Your task to perform on an android device: Go to Reddit.com Image 0: 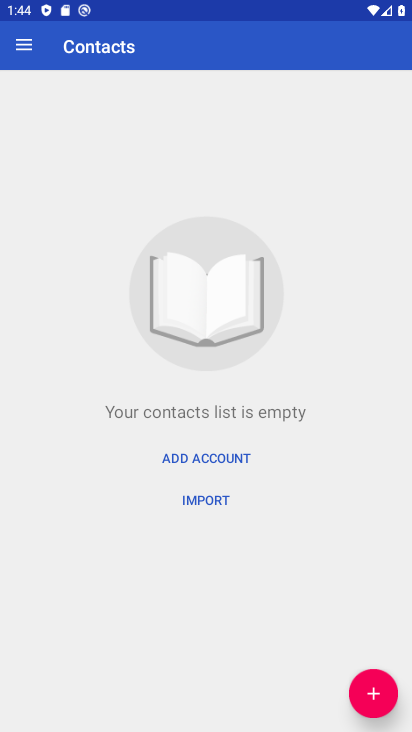
Step 0: press home button
Your task to perform on an android device: Go to Reddit.com Image 1: 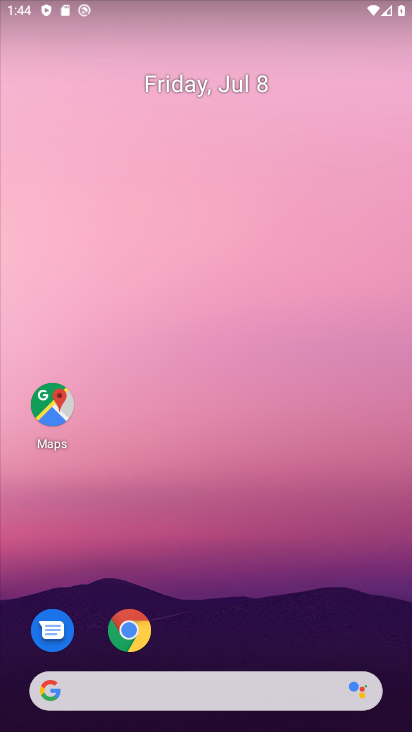
Step 1: drag from (248, 648) to (256, 169)
Your task to perform on an android device: Go to Reddit.com Image 2: 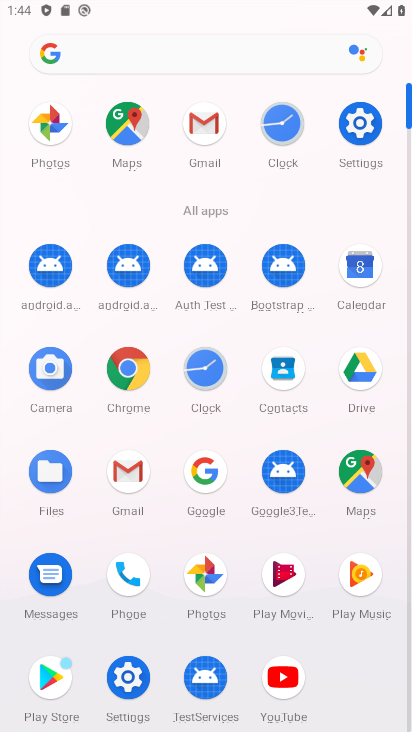
Step 2: click (121, 366)
Your task to perform on an android device: Go to Reddit.com Image 3: 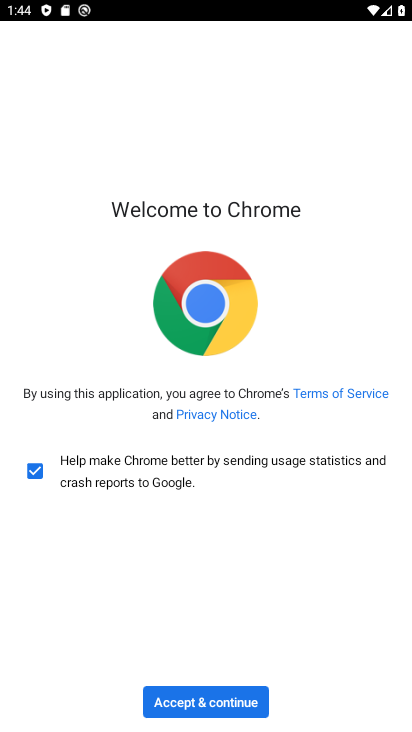
Step 3: click (245, 701)
Your task to perform on an android device: Go to Reddit.com Image 4: 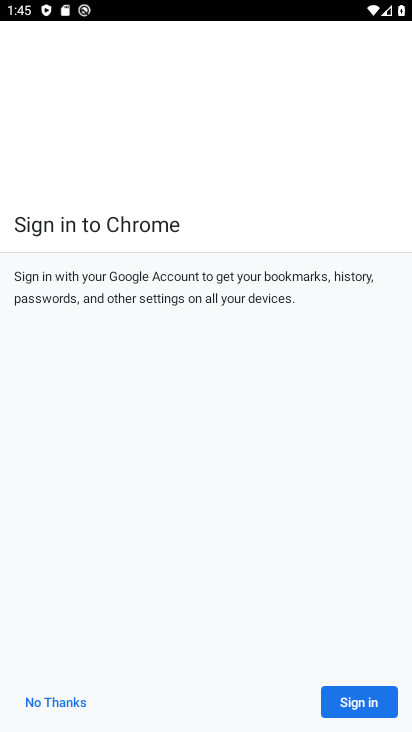
Step 4: click (80, 695)
Your task to perform on an android device: Go to Reddit.com Image 5: 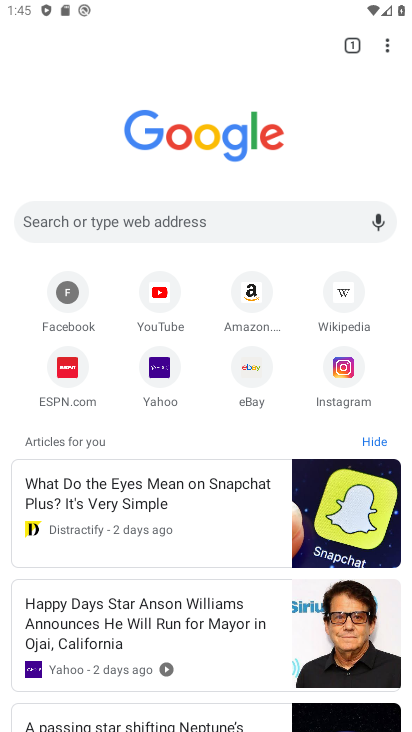
Step 5: click (144, 214)
Your task to perform on an android device: Go to Reddit.com Image 6: 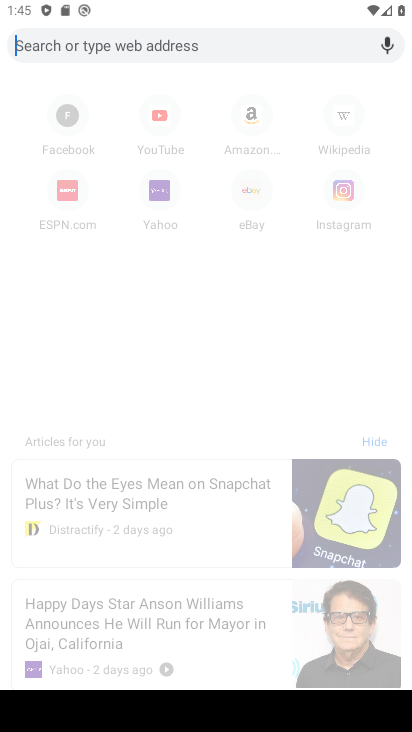
Step 6: type "reddit.com"
Your task to perform on an android device: Go to Reddit.com Image 7: 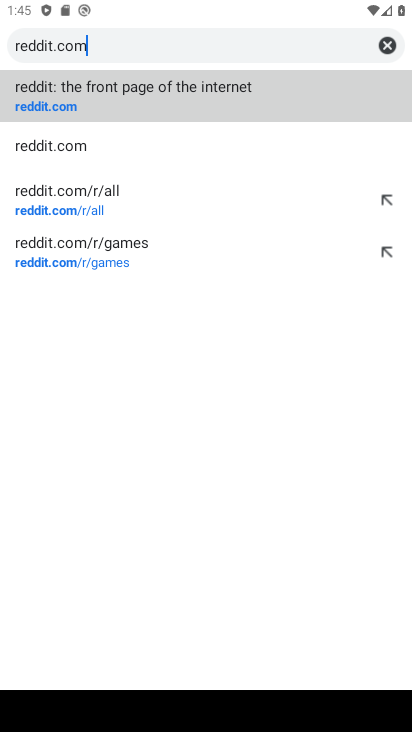
Step 7: click (44, 106)
Your task to perform on an android device: Go to Reddit.com Image 8: 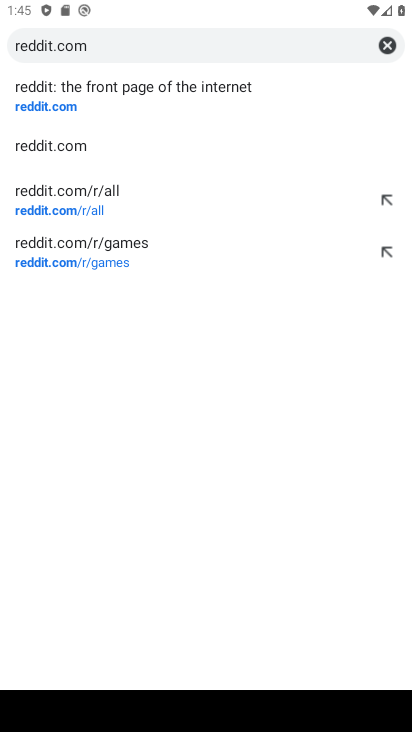
Step 8: click (56, 109)
Your task to perform on an android device: Go to Reddit.com Image 9: 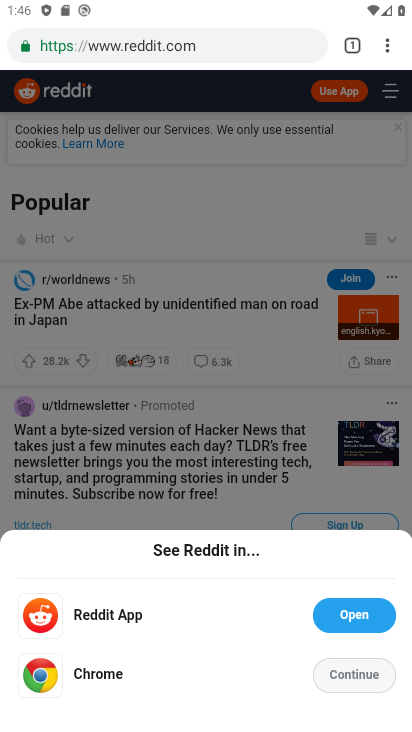
Step 9: task complete